Your task to perform on an android device: Open ESPN.com Image 0: 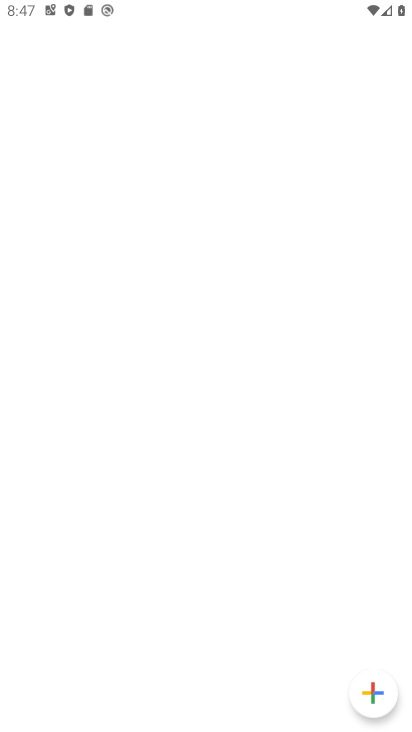
Step 0: drag from (182, 576) to (276, 101)
Your task to perform on an android device: Open ESPN.com Image 1: 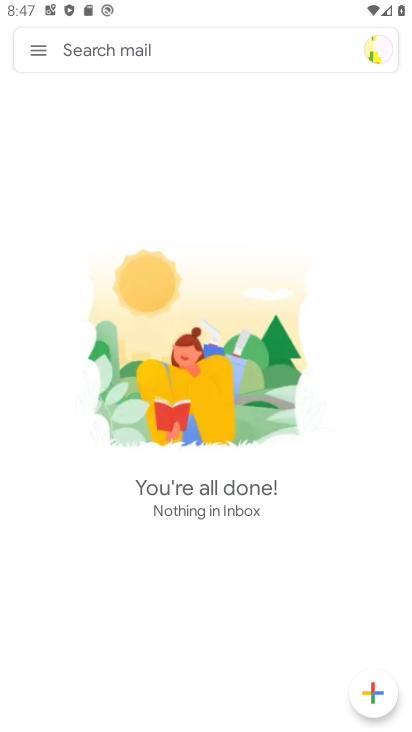
Step 1: press back button
Your task to perform on an android device: Open ESPN.com Image 2: 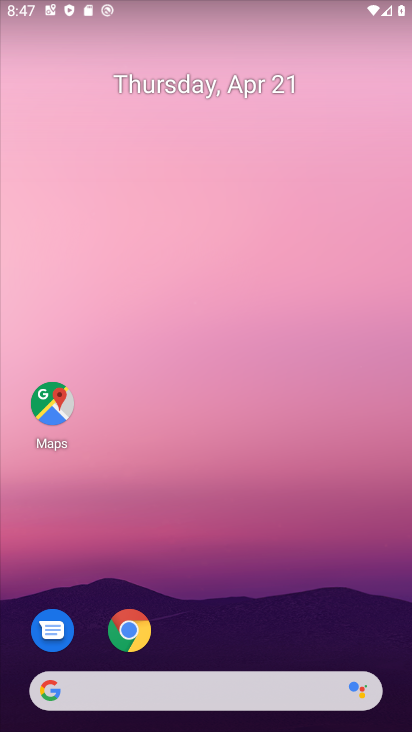
Step 2: click (118, 633)
Your task to perform on an android device: Open ESPN.com Image 3: 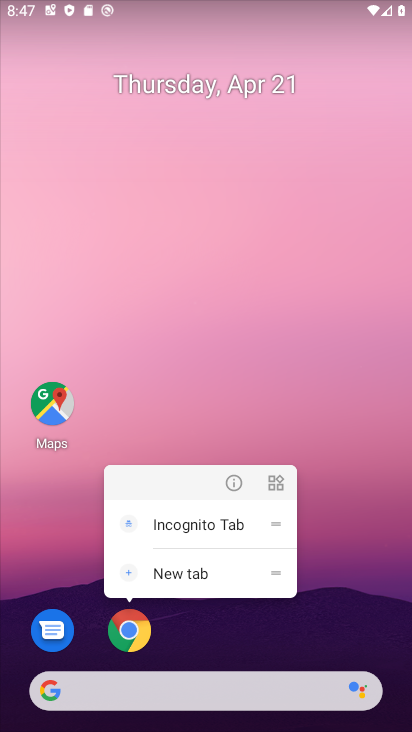
Step 3: click (130, 628)
Your task to perform on an android device: Open ESPN.com Image 4: 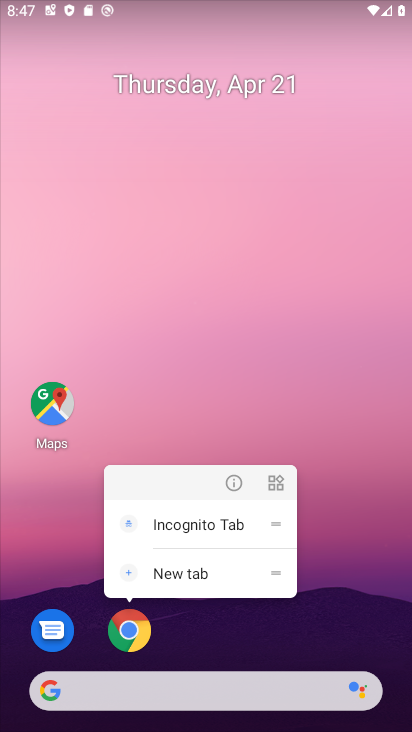
Step 4: click (131, 645)
Your task to perform on an android device: Open ESPN.com Image 5: 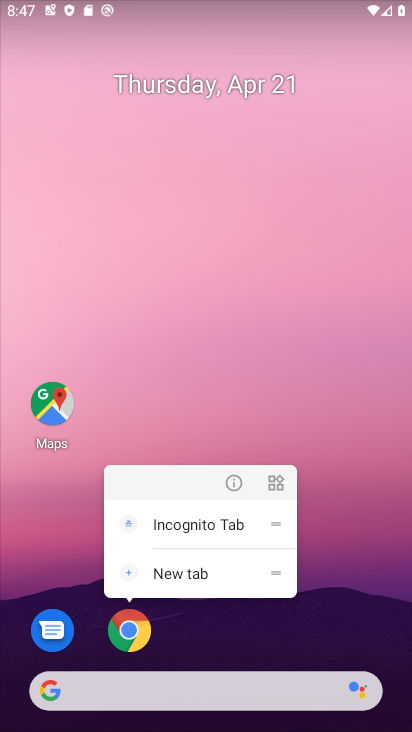
Step 5: click (137, 631)
Your task to perform on an android device: Open ESPN.com Image 6: 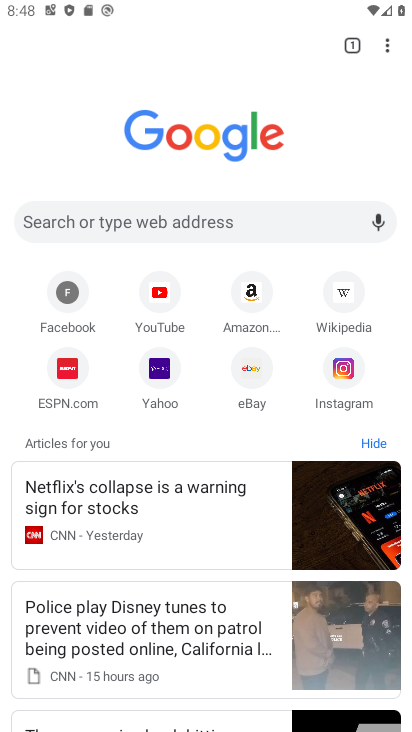
Step 6: click (61, 378)
Your task to perform on an android device: Open ESPN.com Image 7: 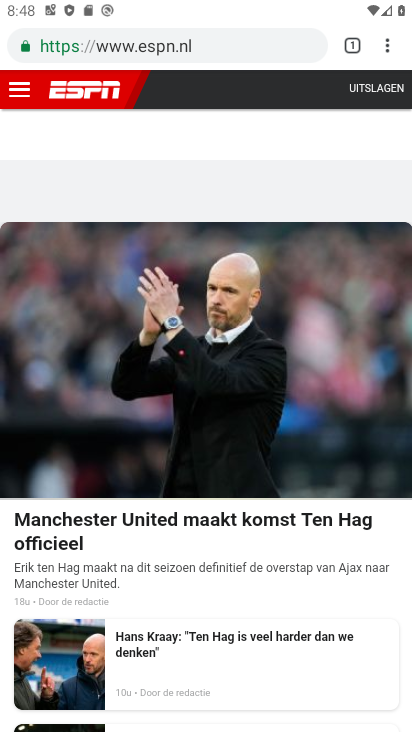
Step 7: task complete